Your task to perform on an android device: Search for seafood restaurants on Google Maps Image 0: 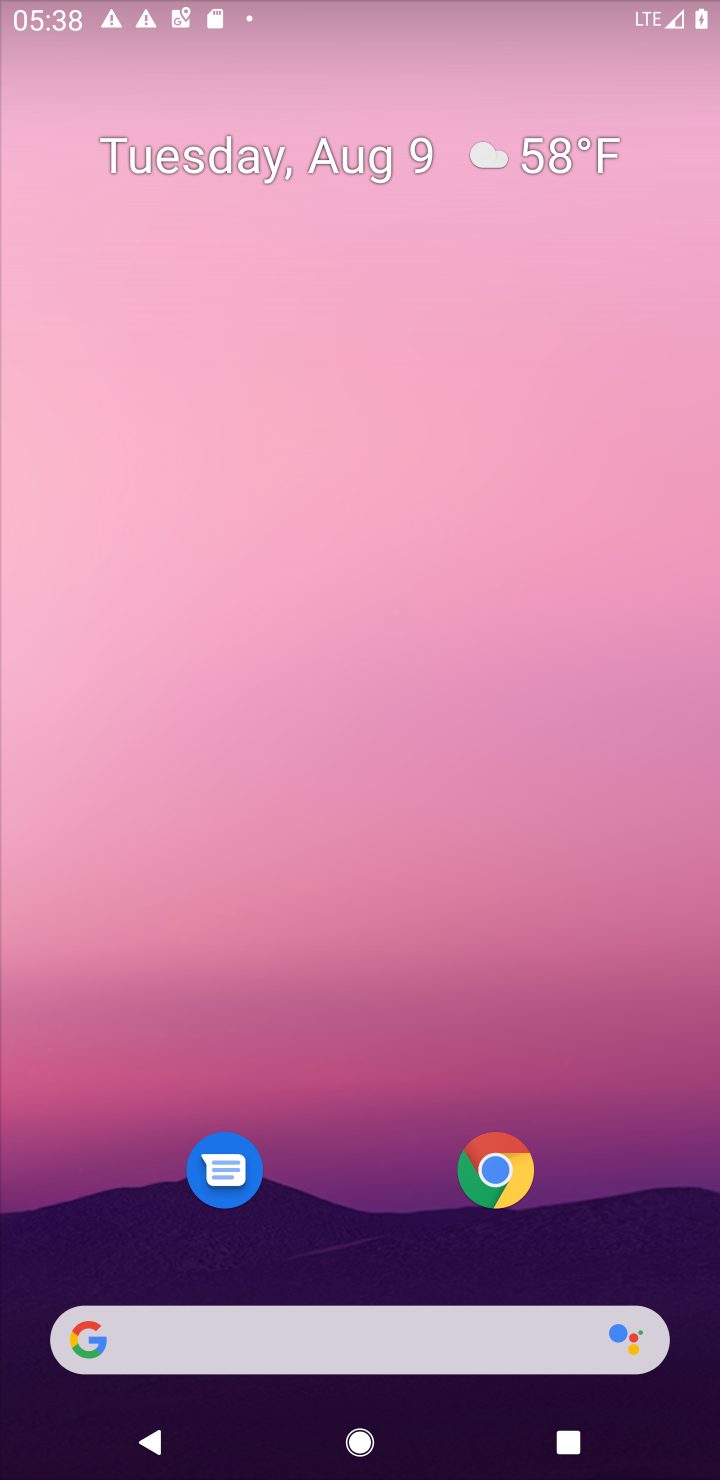
Step 0: press home button
Your task to perform on an android device: Search for seafood restaurants on Google Maps Image 1: 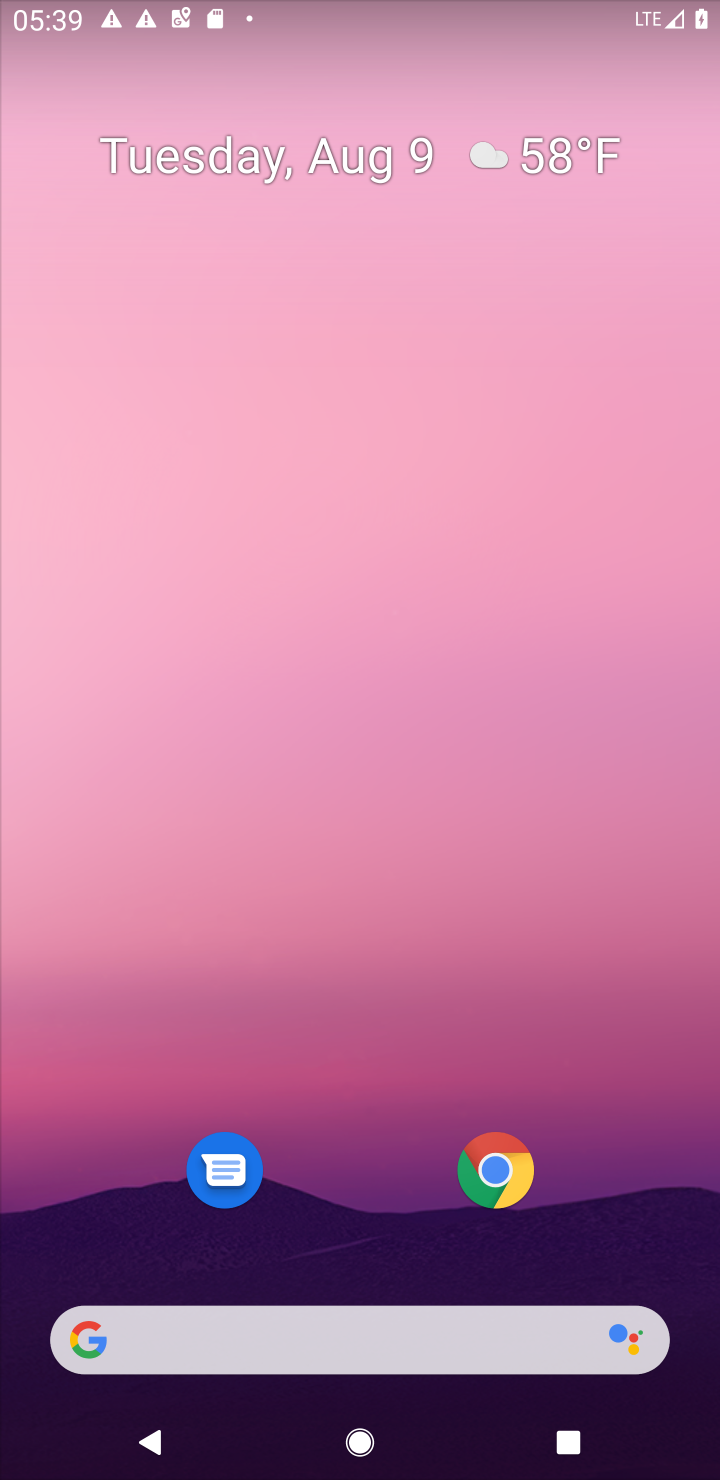
Step 1: drag from (362, 820) to (351, 0)
Your task to perform on an android device: Search for seafood restaurants on Google Maps Image 2: 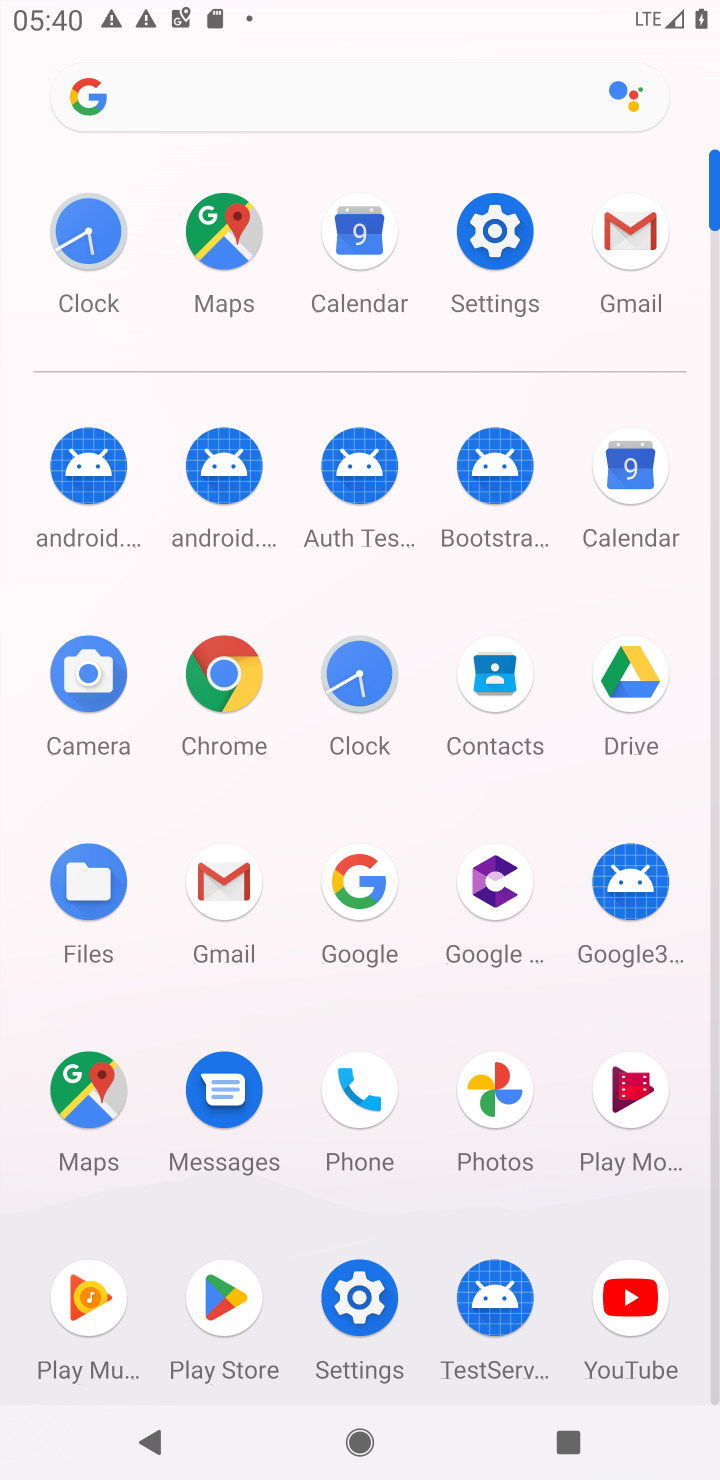
Step 2: click (244, 251)
Your task to perform on an android device: Search for seafood restaurants on Google Maps Image 3: 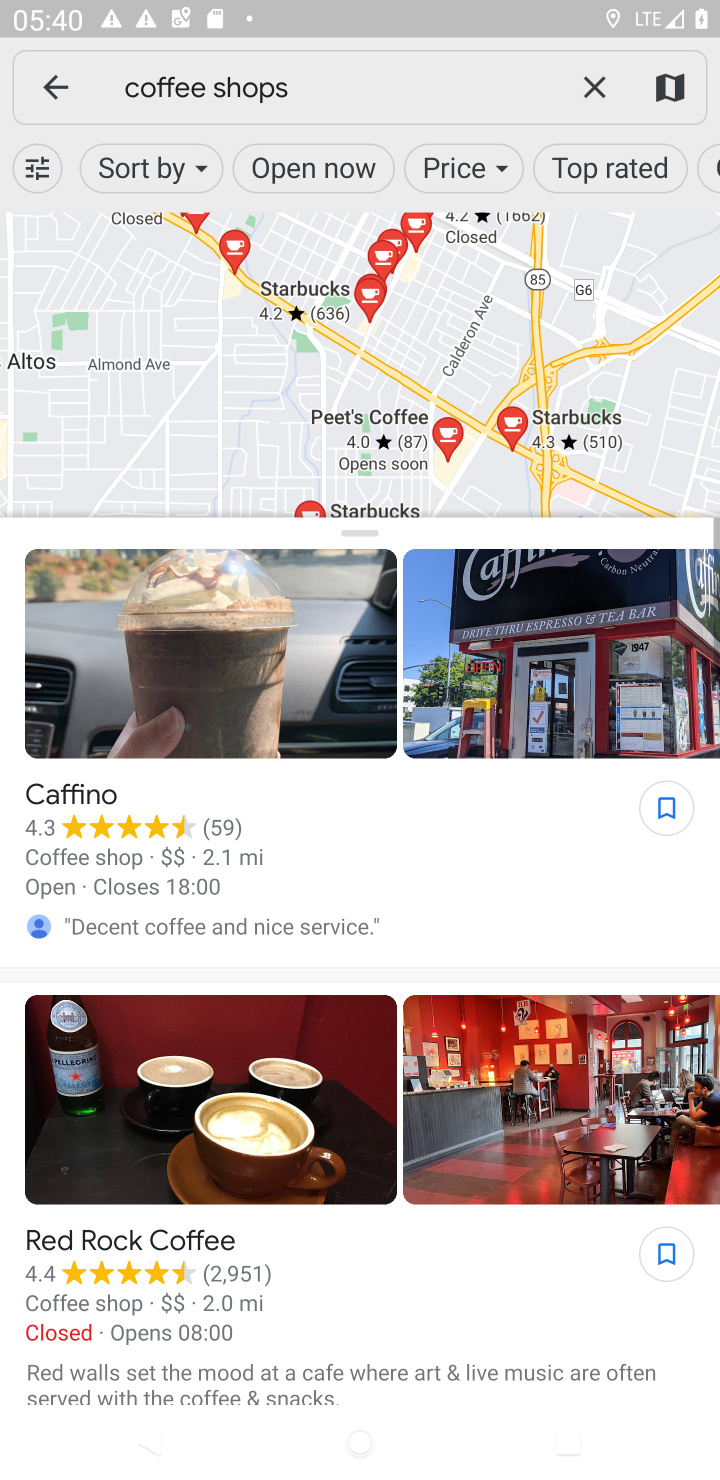
Step 3: click (600, 98)
Your task to perform on an android device: Search for seafood restaurants on Google Maps Image 4: 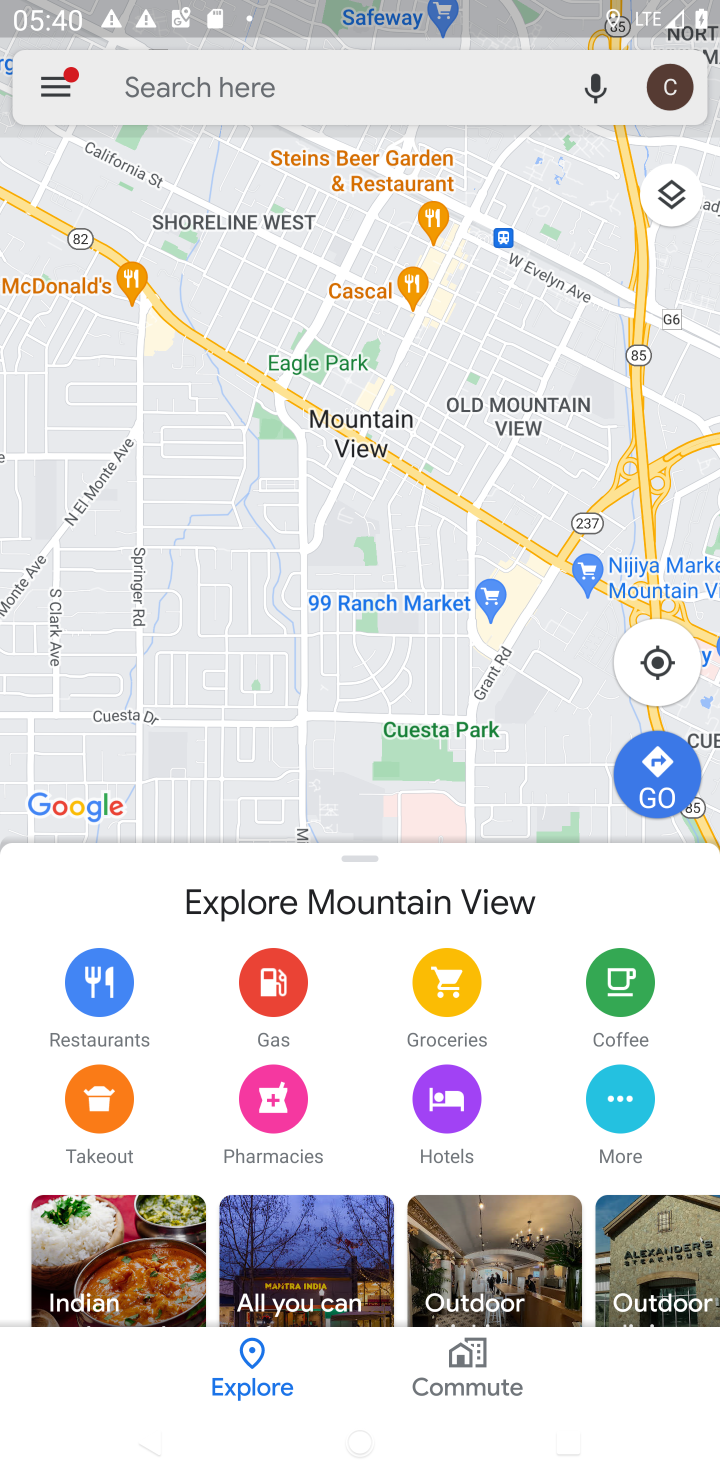
Step 4: type "seafood restaurants"
Your task to perform on an android device: Search for seafood restaurants on Google Maps Image 5: 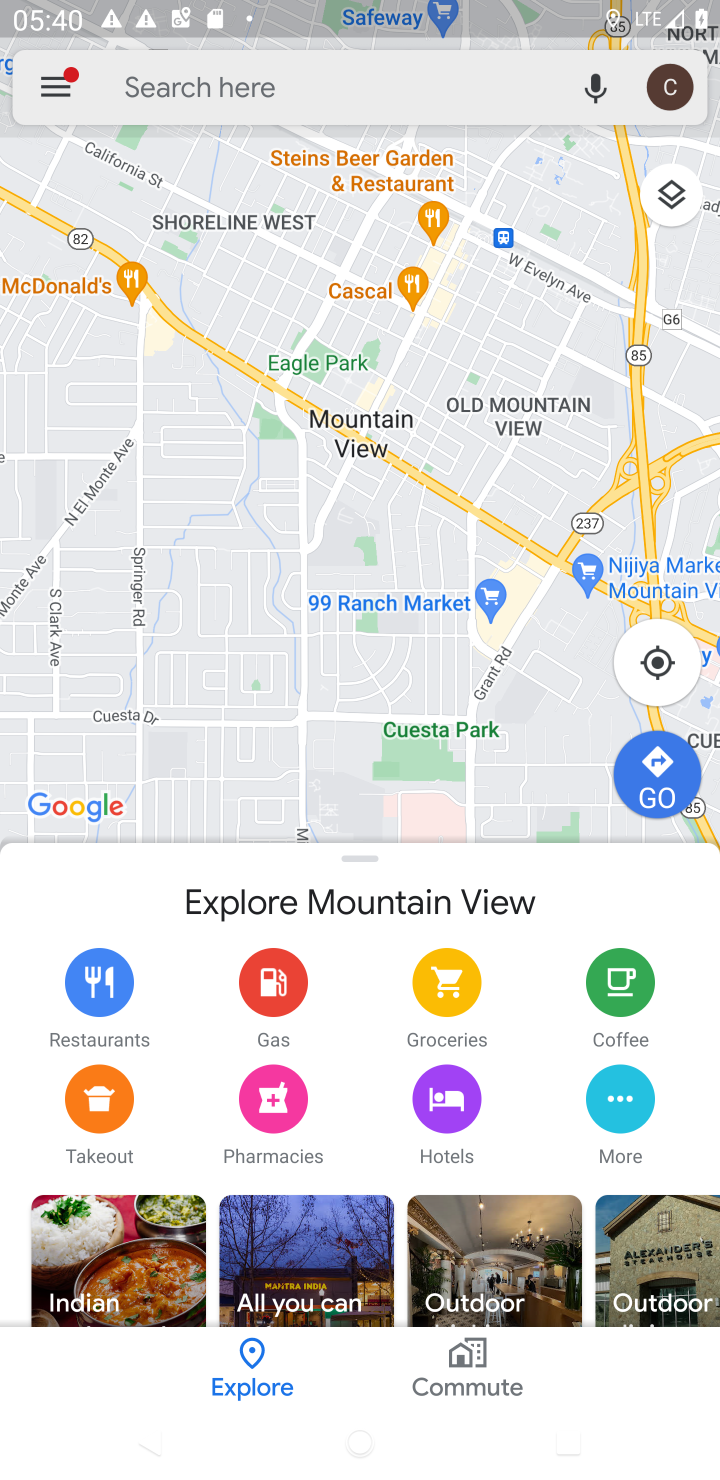
Step 5: click (222, 102)
Your task to perform on an android device: Search for seafood restaurants on Google Maps Image 6: 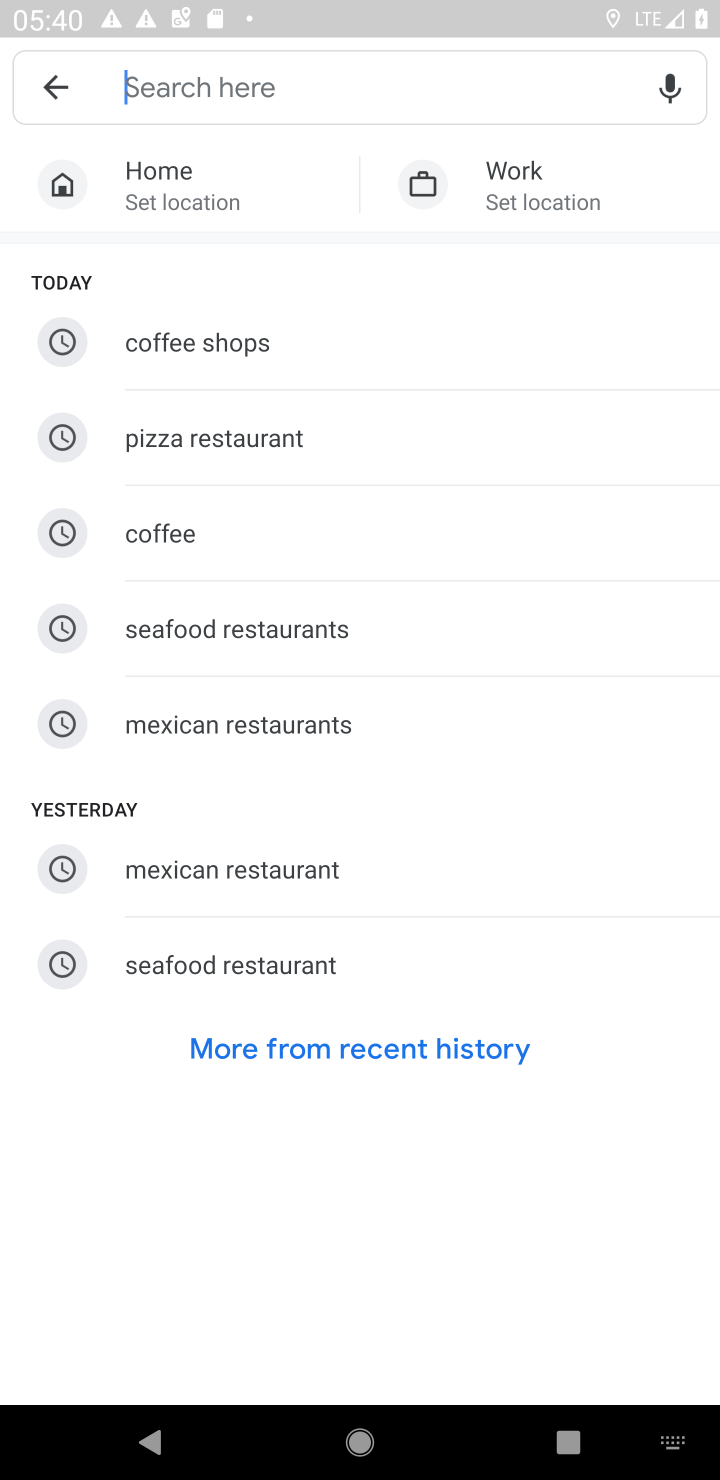
Step 6: click (247, 630)
Your task to perform on an android device: Search for seafood restaurants on Google Maps Image 7: 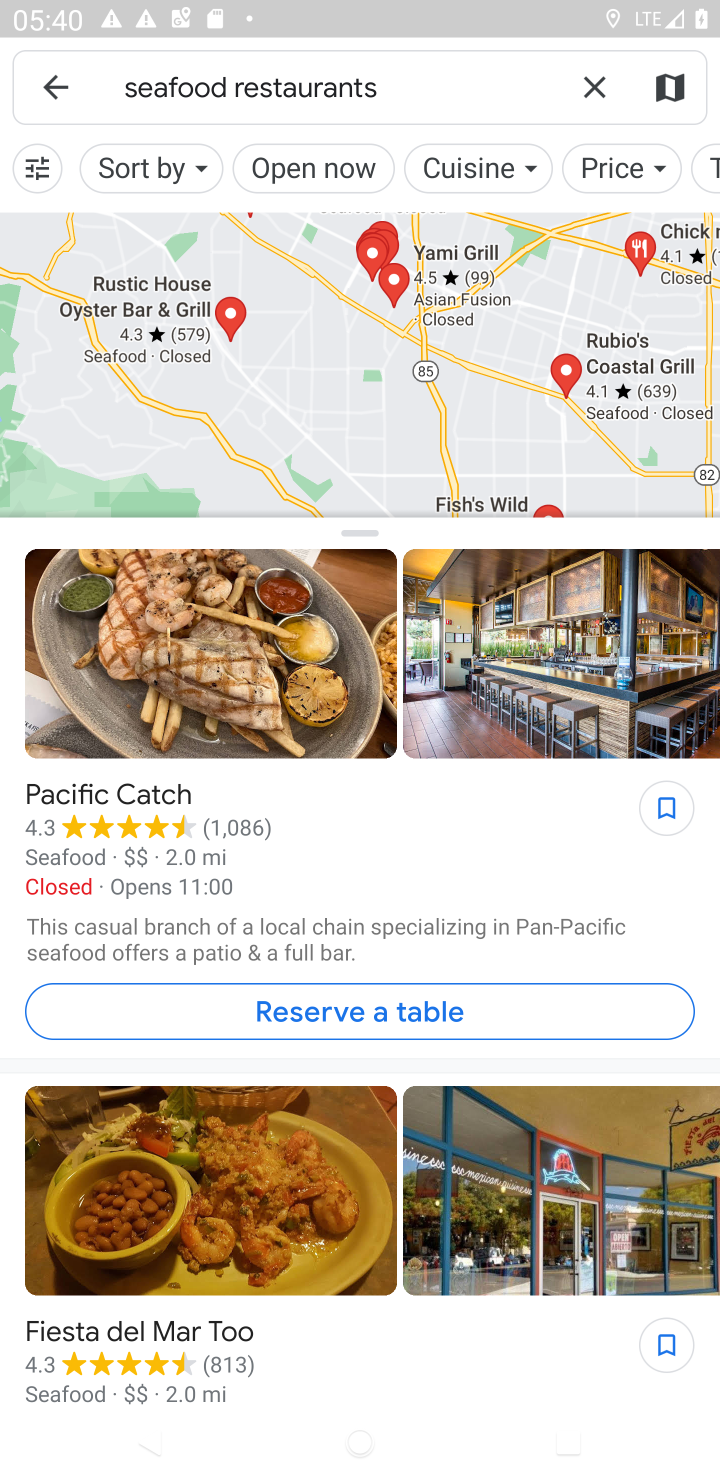
Step 7: task complete